Your task to perform on an android device: turn on the 24-hour format for clock Image 0: 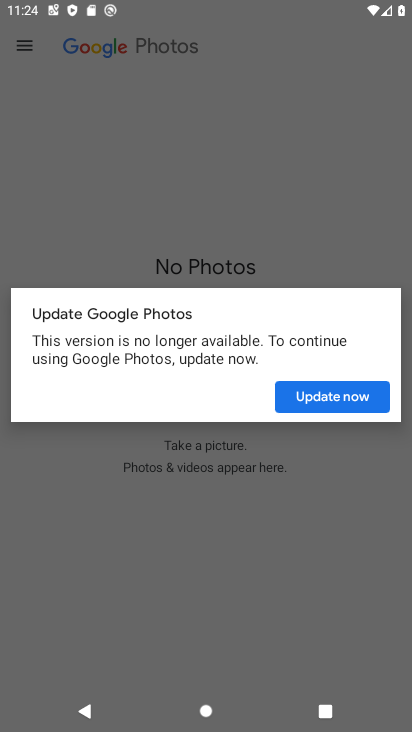
Step 0: press home button
Your task to perform on an android device: turn on the 24-hour format for clock Image 1: 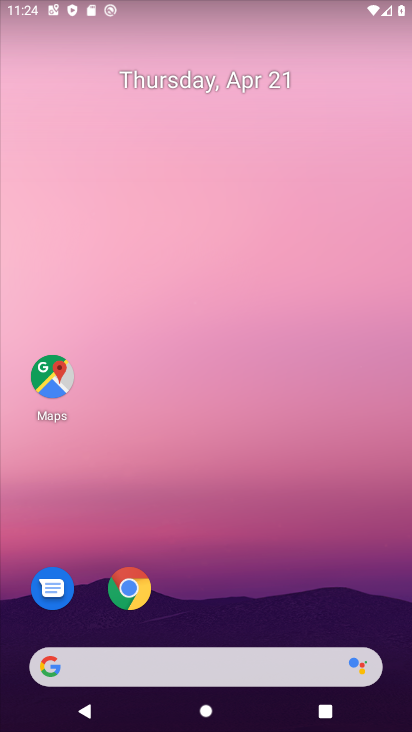
Step 1: drag from (204, 424) to (240, 72)
Your task to perform on an android device: turn on the 24-hour format for clock Image 2: 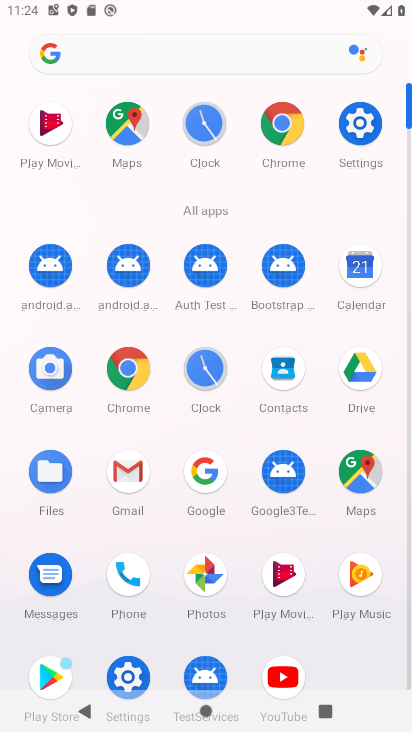
Step 2: click (204, 376)
Your task to perform on an android device: turn on the 24-hour format for clock Image 3: 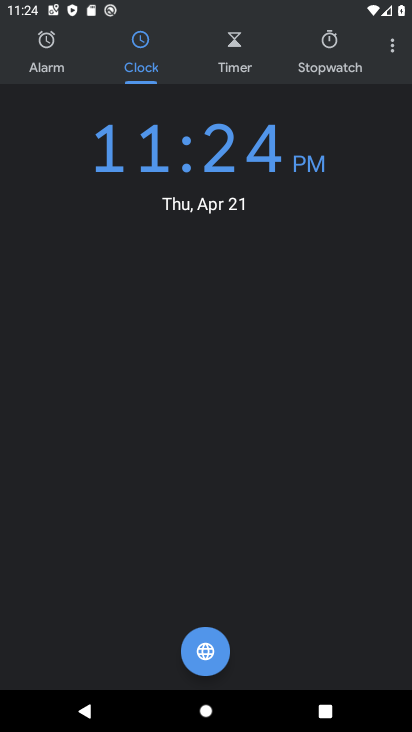
Step 3: click (394, 38)
Your task to perform on an android device: turn on the 24-hour format for clock Image 4: 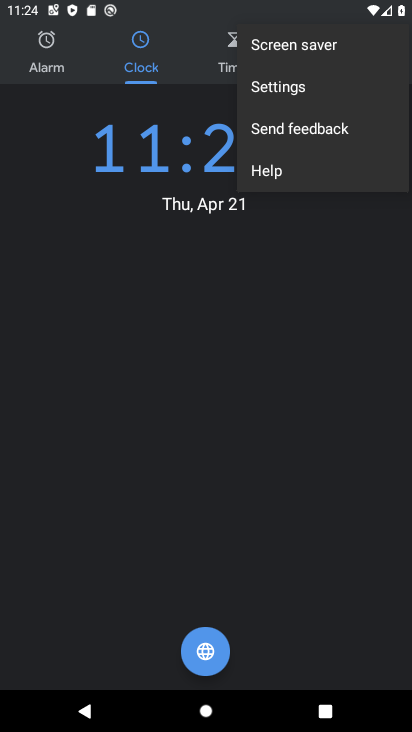
Step 4: click (286, 99)
Your task to perform on an android device: turn on the 24-hour format for clock Image 5: 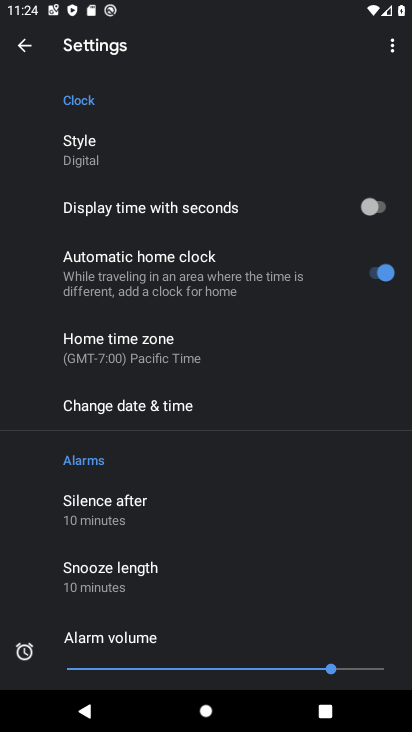
Step 5: click (146, 402)
Your task to perform on an android device: turn on the 24-hour format for clock Image 6: 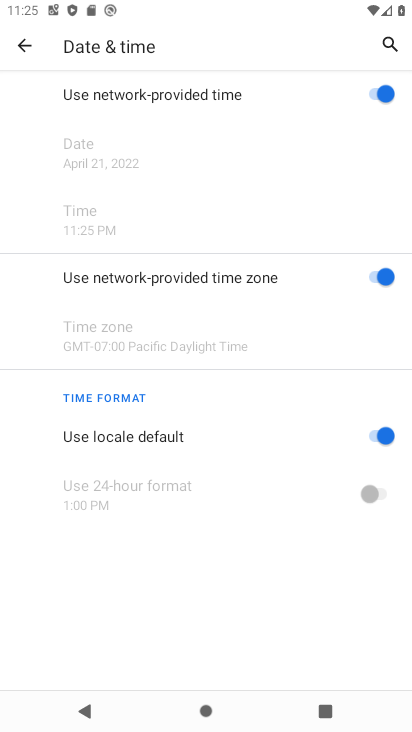
Step 6: click (388, 444)
Your task to perform on an android device: turn on the 24-hour format for clock Image 7: 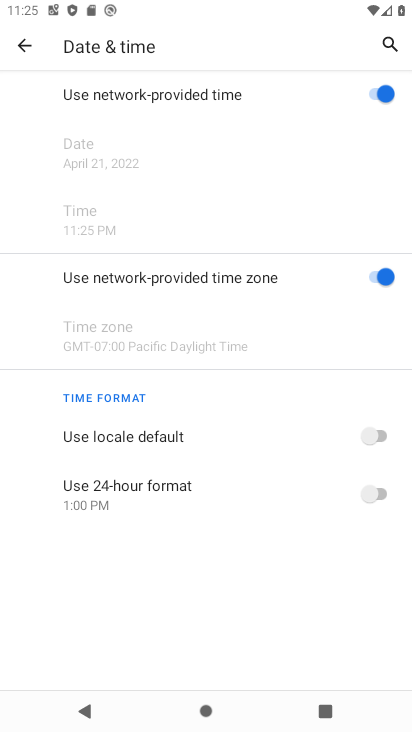
Step 7: click (370, 495)
Your task to perform on an android device: turn on the 24-hour format for clock Image 8: 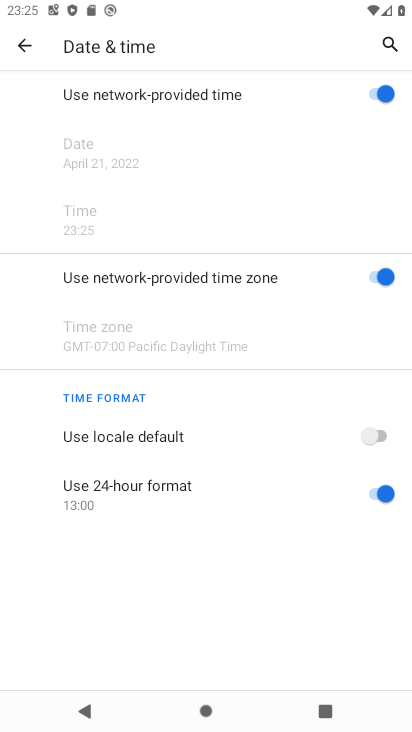
Step 8: task complete